Your task to perform on an android device: Open calendar and show me the second week of next month Image 0: 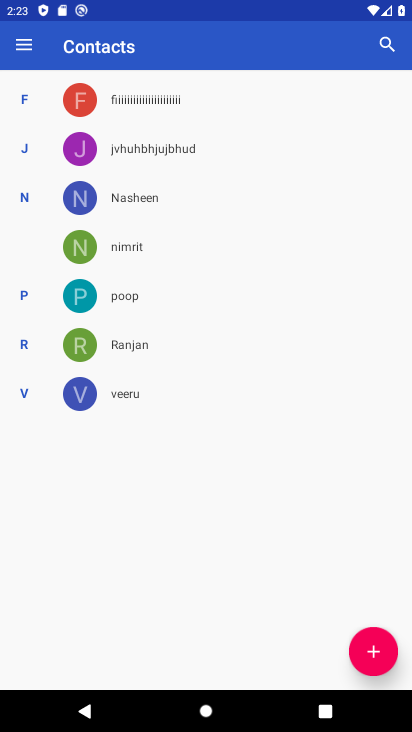
Step 0: press back button
Your task to perform on an android device: Open calendar and show me the second week of next month Image 1: 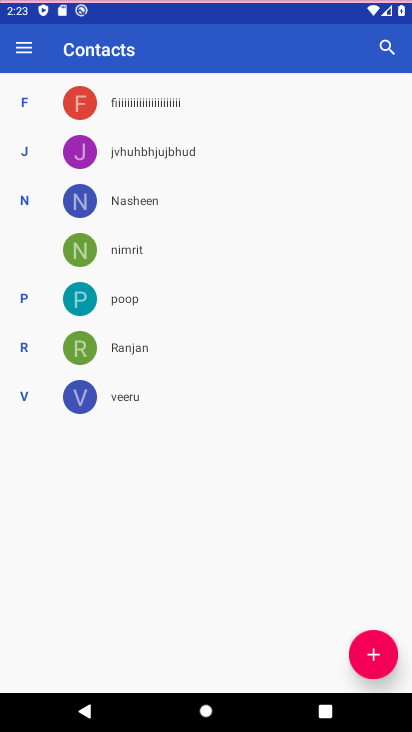
Step 1: press back button
Your task to perform on an android device: Open calendar and show me the second week of next month Image 2: 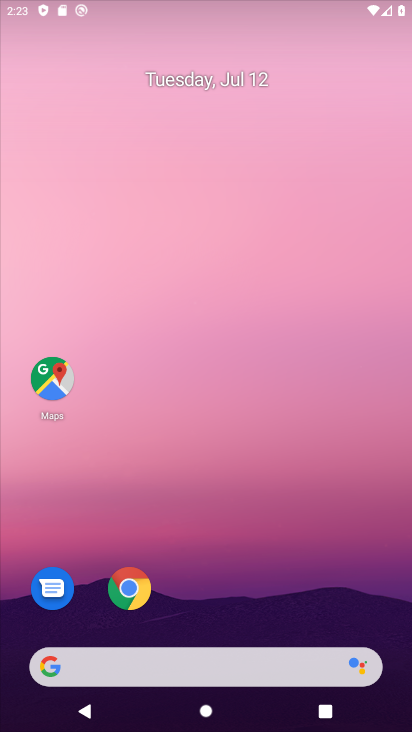
Step 2: press back button
Your task to perform on an android device: Open calendar and show me the second week of next month Image 3: 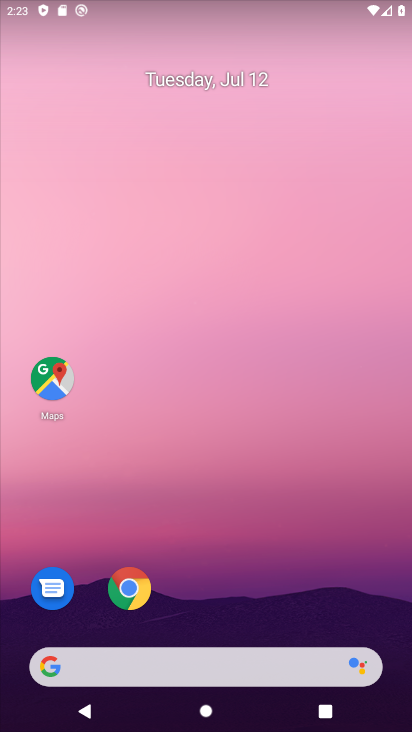
Step 3: drag from (280, 601) to (240, 146)
Your task to perform on an android device: Open calendar and show me the second week of next month Image 4: 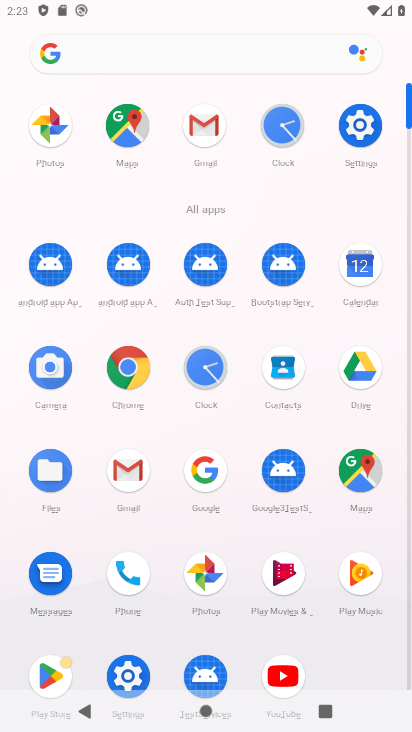
Step 4: click (232, 175)
Your task to perform on an android device: Open calendar and show me the second week of next month Image 5: 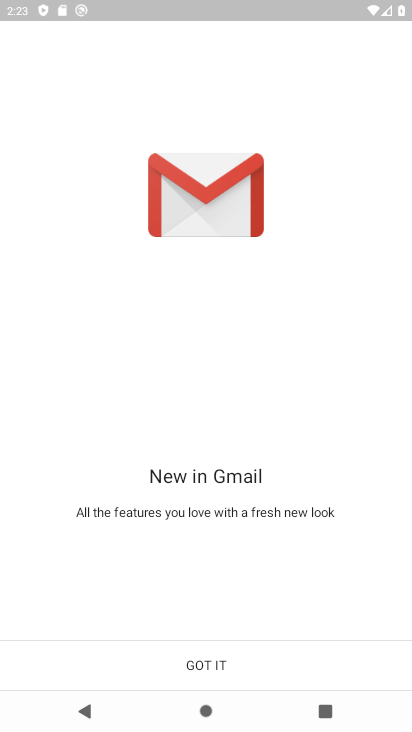
Step 5: press back button
Your task to perform on an android device: Open calendar and show me the second week of next month Image 6: 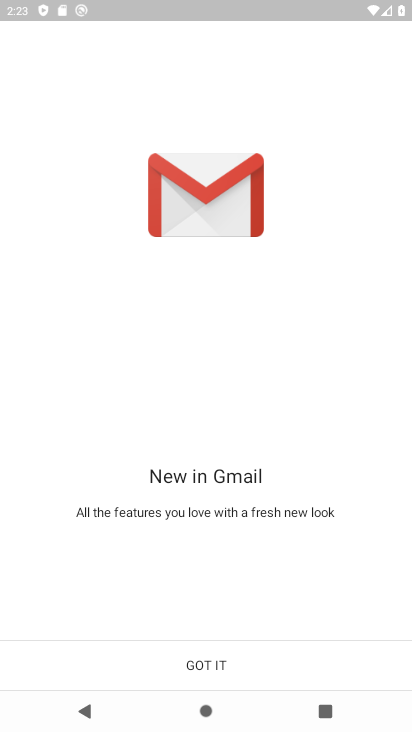
Step 6: press back button
Your task to perform on an android device: Open calendar and show me the second week of next month Image 7: 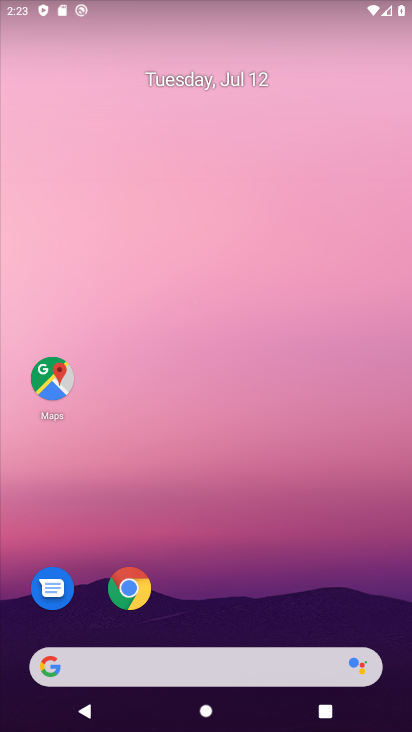
Step 7: drag from (224, 381) to (168, 176)
Your task to perform on an android device: Open calendar and show me the second week of next month Image 8: 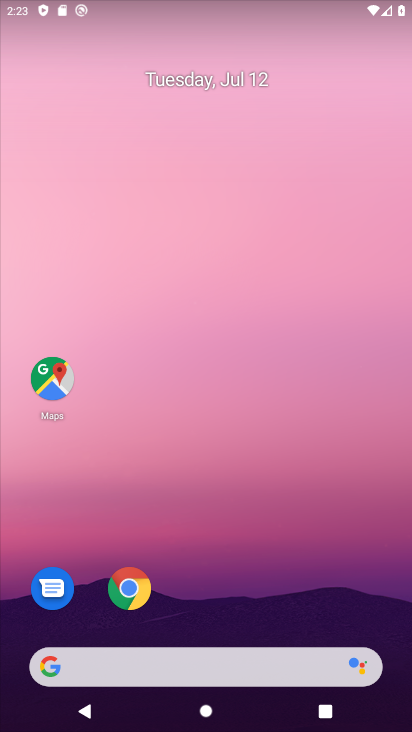
Step 8: drag from (248, 246) to (235, 188)
Your task to perform on an android device: Open calendar and show me the second week of next month Image 9: 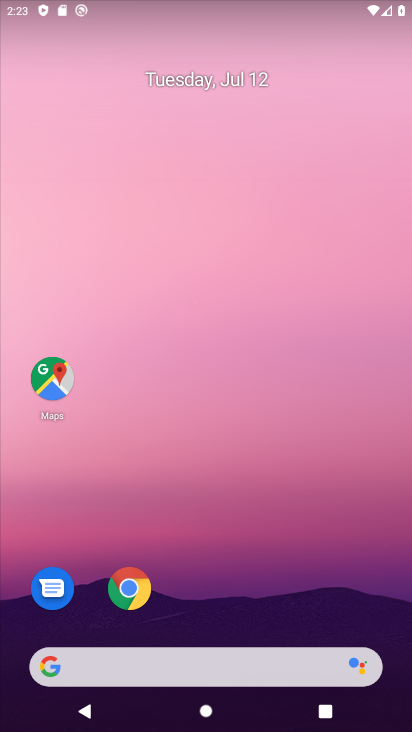
Step 9: click (186, 158)
Your task to perform on an android device: Open calendar and show me the second week of next month Image 10: 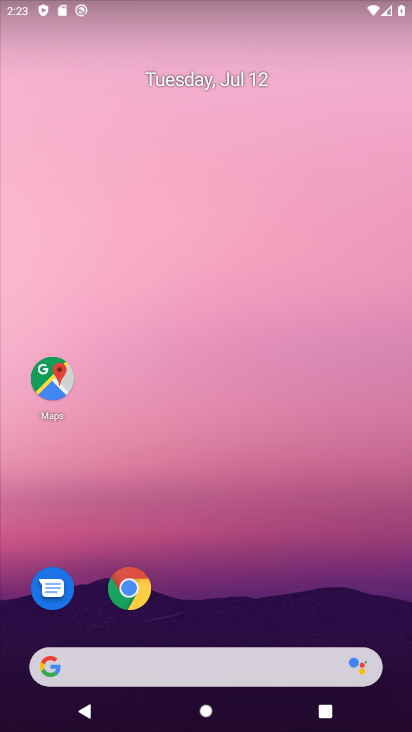
Step 10: drag from (277, 470) to (243, 63)
Your task to perform on an android device: Open calendar and show me the second week of next month Image 11: 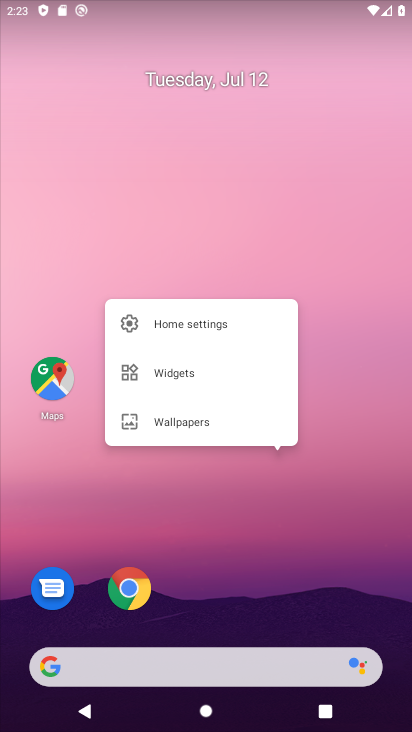
Step 11: click (149, 43)
Your task to perform on an android device: Open calendar and show me the second week of next month Image 12: 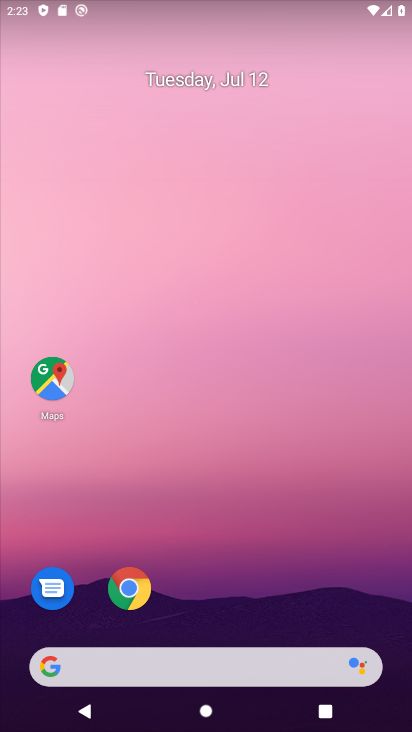
Step 12: click (143, 34)
Your task to perform on an android device: Open calendar and show me the second week of next month Image 13: 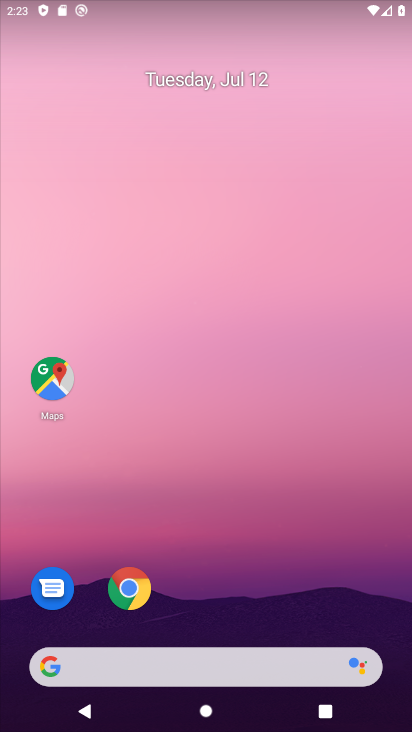
Step 13: drag from (219, 479) to (236, 75)
Your task to perform on an android device: Open calendar and show me the second week of next month Image 14: 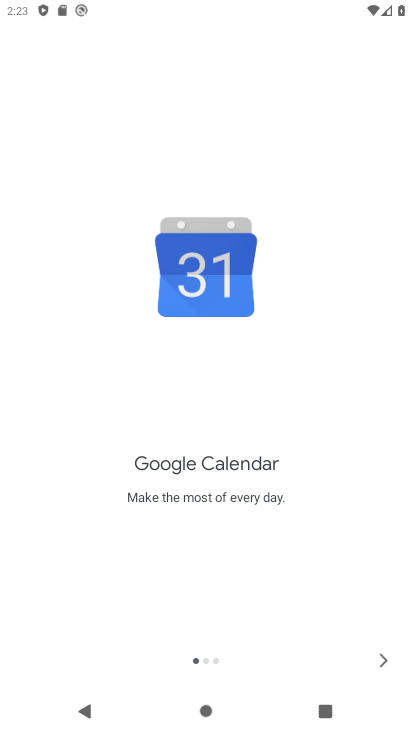
Step 14: drag from (232, 556) to (199, 156)
Your task to perform on an android device: Open calendar and show me the second week of next month Image 15: 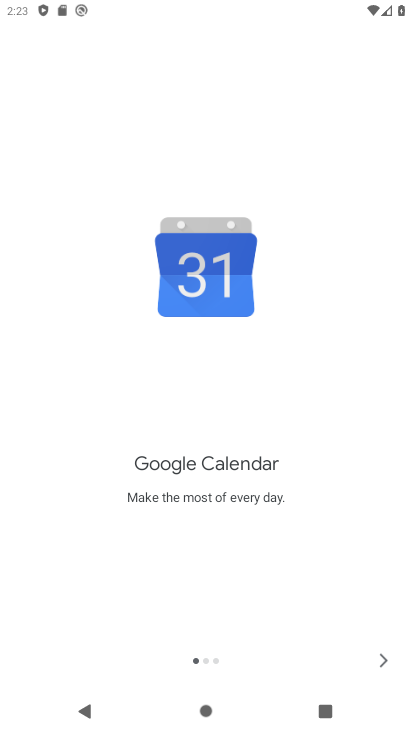
Step 15: click (385, 655)
Your task to perform on an android device: Open calendar and show me the second week of next month Image 16: 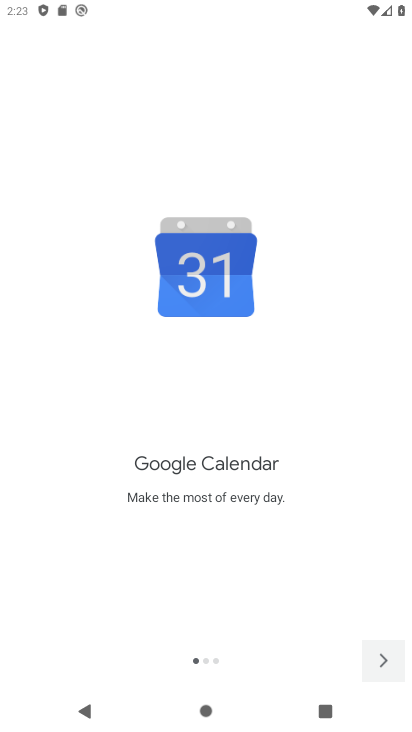
Step 16: click (385, 655)
Your task to perform on an android device: Open calendar and show me the second week of next month Image 17: 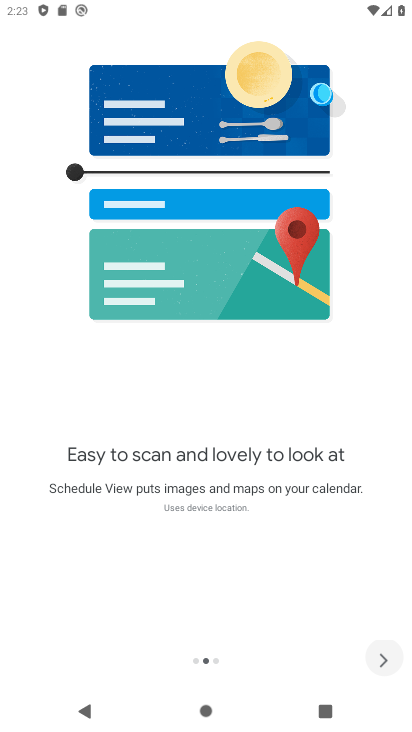
Step 17: click (385, 655)
Your task to perform on an android device: Open calendar and show me the second week of next month Image 18: 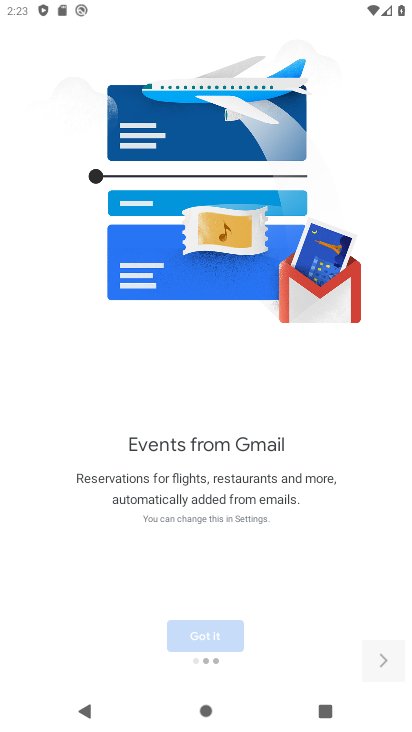
Step 18: click (385, 655)
Your task to perform on an android device: Open calendar and show me the second week of next month Image 19: 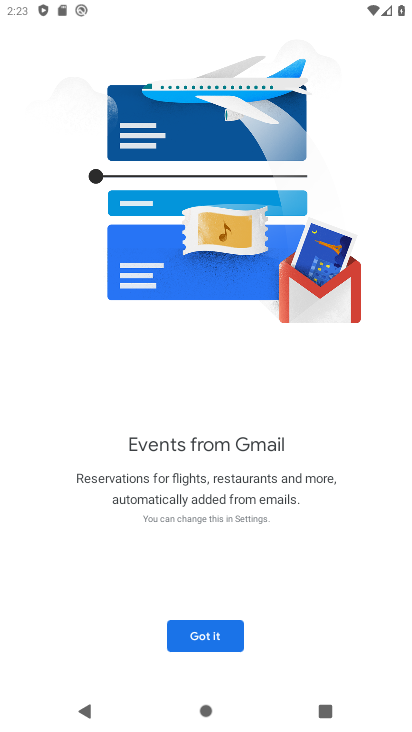
Step 19: click (383, 655)
Your task to perform on an android device: Open calendar and show me the second week of next month Image 20: 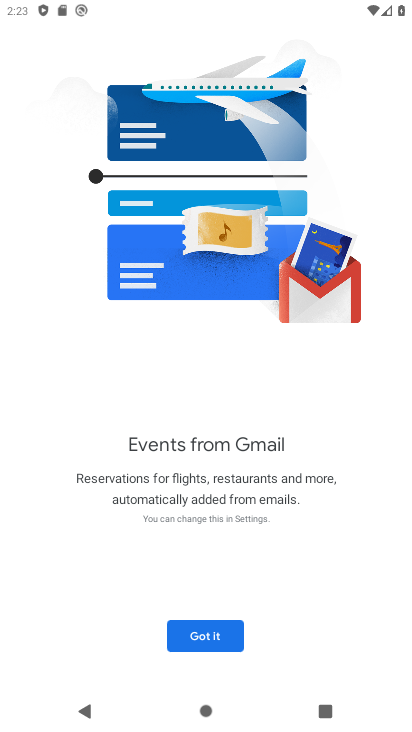
Step 20: click (228, 638)
Your task to perform on an android device: Open calendar and show me the second week of next month Image 21: 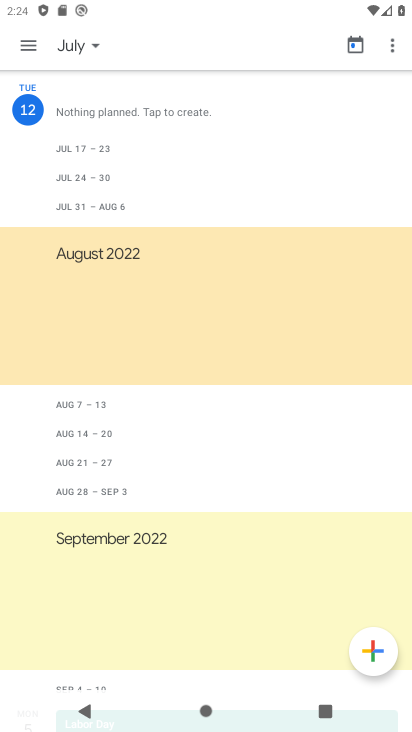
Step 21: click (78, 406)
Your task to perform on an android device: Open calendar and show me the second week of next month Image 22: 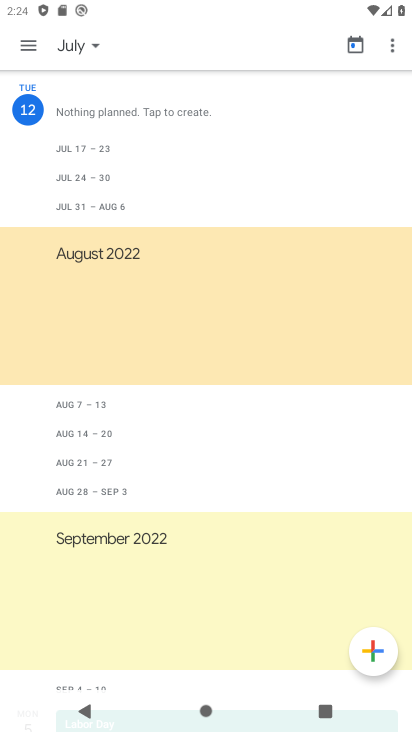
Step 22: click (78, 406)
Your task to perform on an android device: Open calendar and show me the second week of next month Image 23: 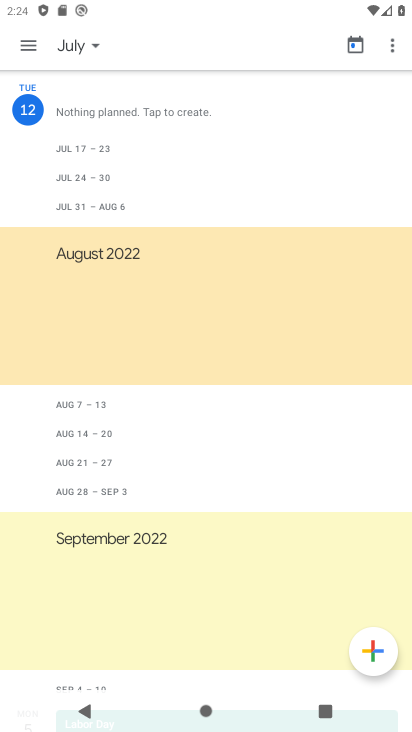
Step 23: click (78, 406)
Your task to perform on an android device: Open calendar and show me the second week of next month Image 24: 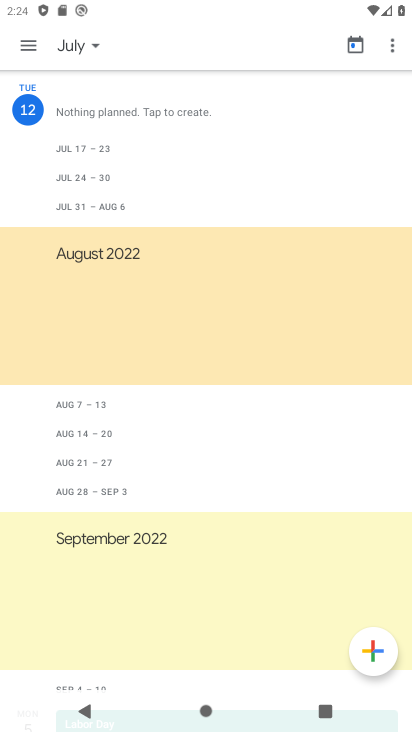
Step 24: click (77, 406)
Your task to perform on an android device: Open calendar and show me the second week of next month Image 25: 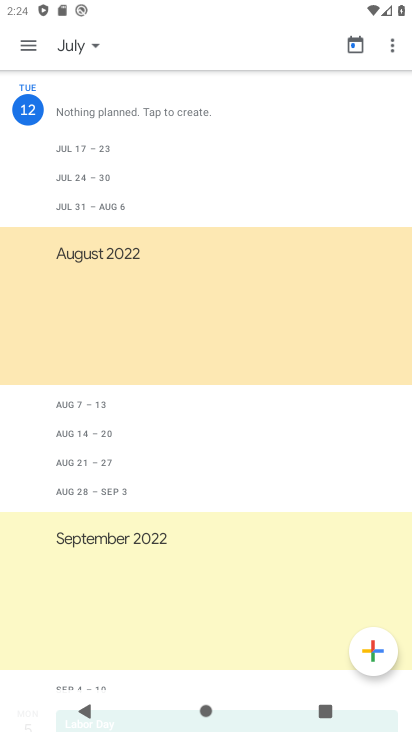
Step 25: click (70, 406)
Your task to perform on an android device: Open calendar and show me the second week of next month Image 26: 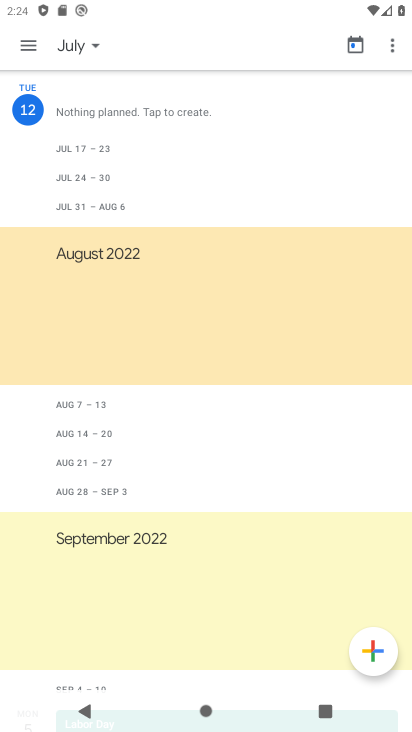
Step 26: click (68, 406)
Your task to perform on an android device: Open calendar and show me the second week of next month Image 27: 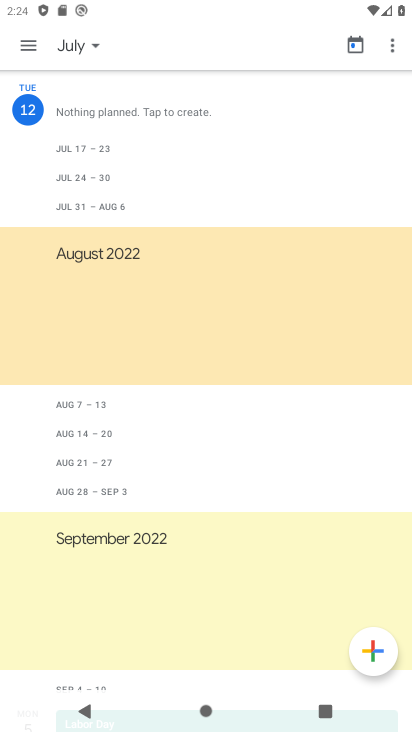
Step 27: click (68, 406)
Your task to perform on an android device: Open calendar and show me the second week of next month Image 28: 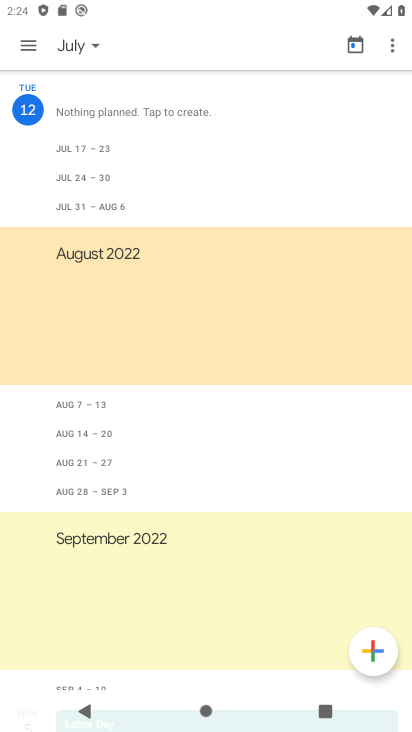
Step 28: click (68, 406)
Your task to perform on an android device: Open calendar and show me the second week of next month Image 29: 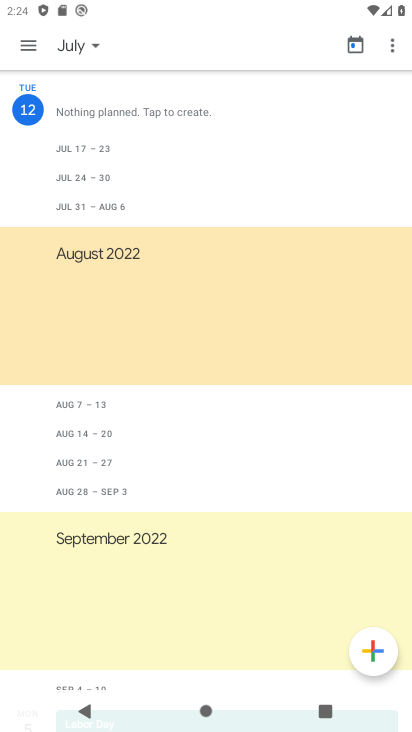
Step 29: click (68, 406)
Your task to perform on an android device: Open calendar and show me the second week of next month Image 30: 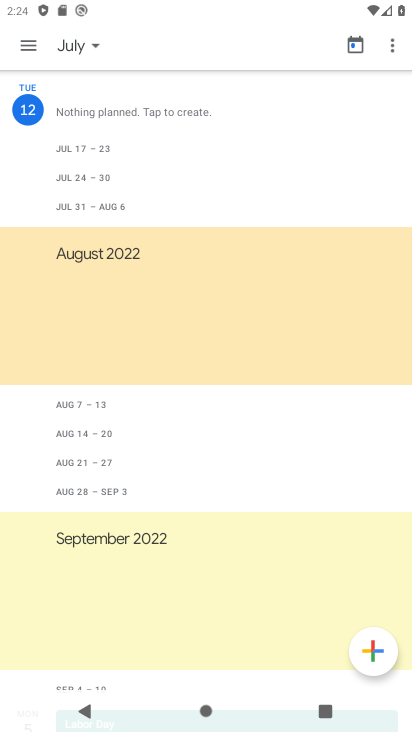
Step 30: click (67, 408)
Your task to perform on an android device: Open calendar and show me the second week of next month Image 31: 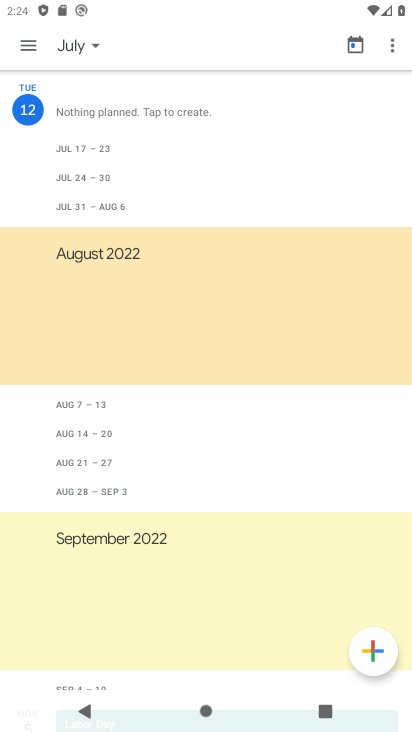
Step 31: click (68, 414)
Your task to perform on an android device: Open calendar and show me the second week of next month Image 32: 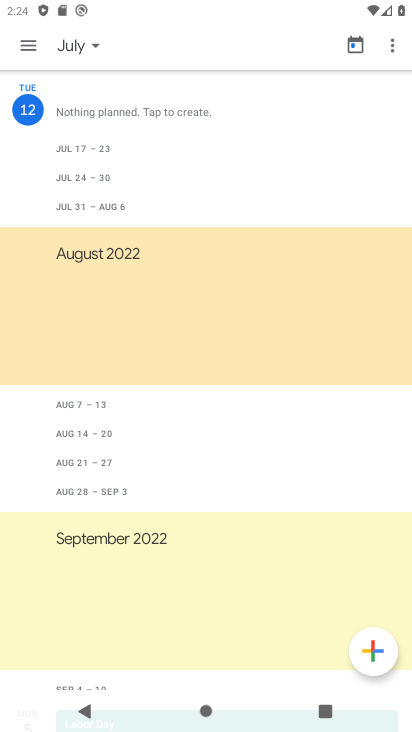
Step 32: click (81, 393)
Your task to perform on an android device: Open calendar and show me the second week of next month Image 33: 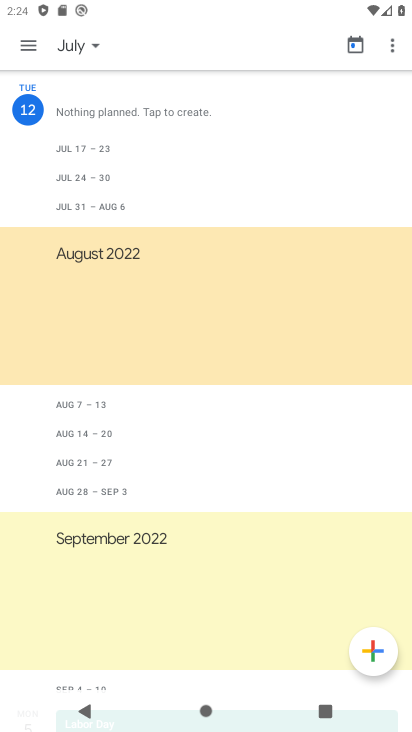
Step 33: task complete